Your task to perform on an android device: open a bookmark in the chrome app Image 0: 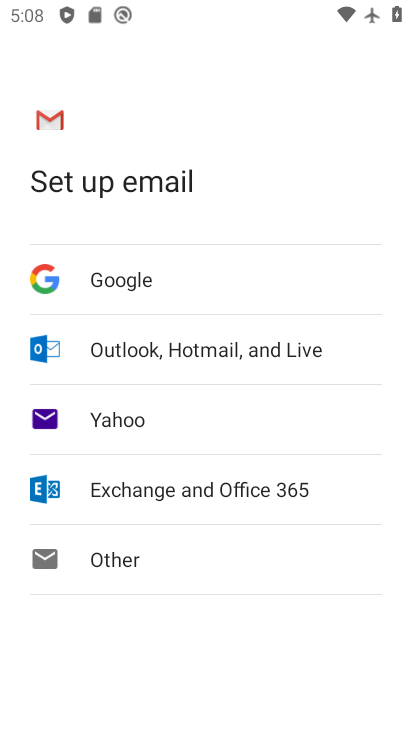
Step 0: press home button
Your task to perform on an android device: open a bookmark in the chrome app Image 1: 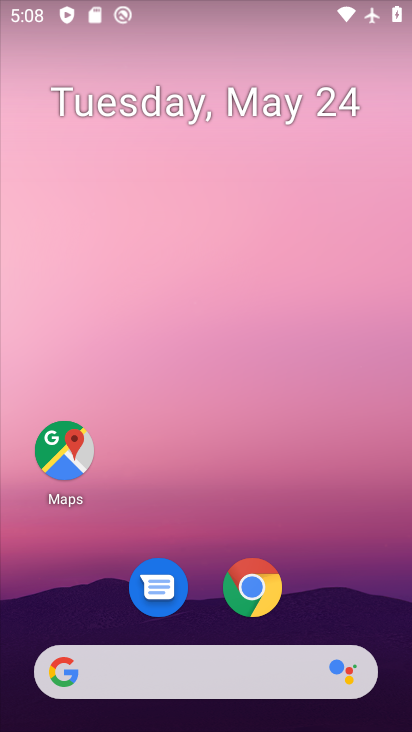
Step 1: click (277, 585)
Your task to perform on an android device: open a bookmark in the chrome app Image 2: 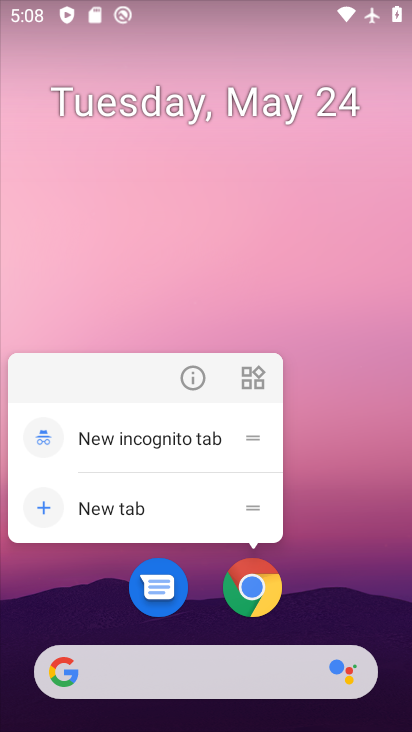
Step 2: click (259, 604)
Your task to perform on an android device: open a bookmark in the chrome app Image 3: 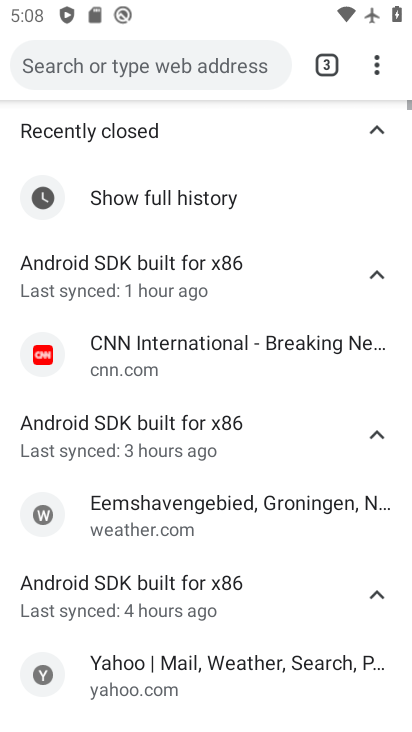
Step 3: click (380, 81)
Your task to perform on an android device: open a bookmark in the chrome app Image 4: 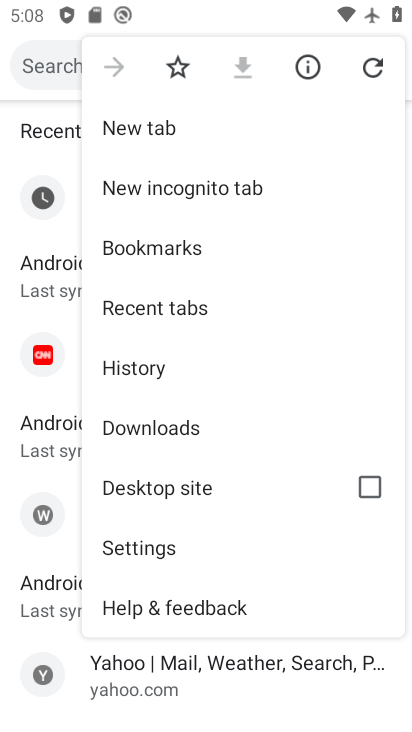
Step 4: click (247, 243)
Your task to perform on an android device: open a bookmark in the chrome app Image 5: 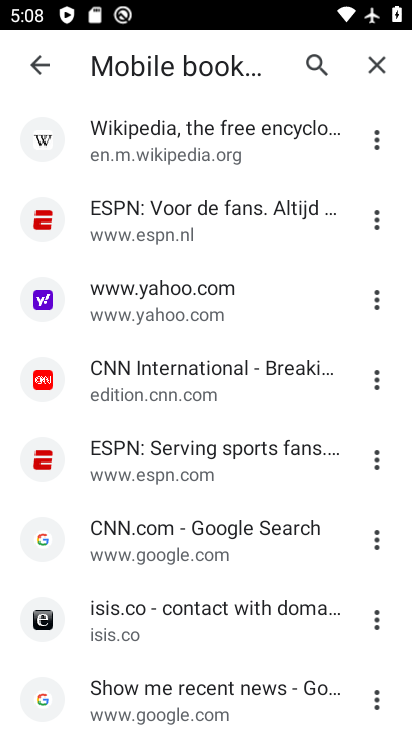
Step 5: click (223, 602)
Your task to perform on an android device: open a bookmark in the chrome app Image 6: 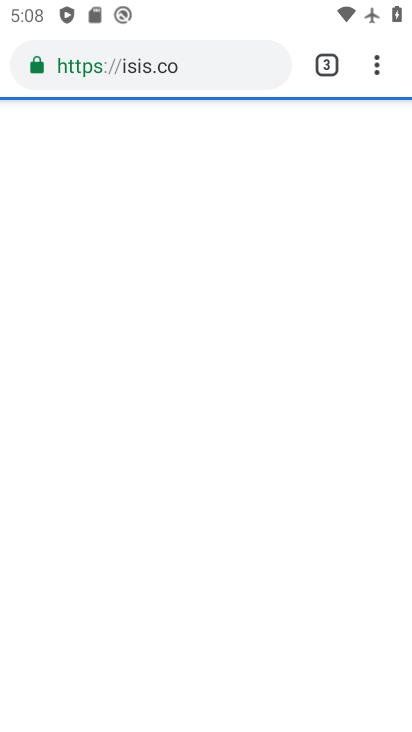
Step 6: task complete